Your task to perform on an android device: toggle improve location accuracy Image 0: 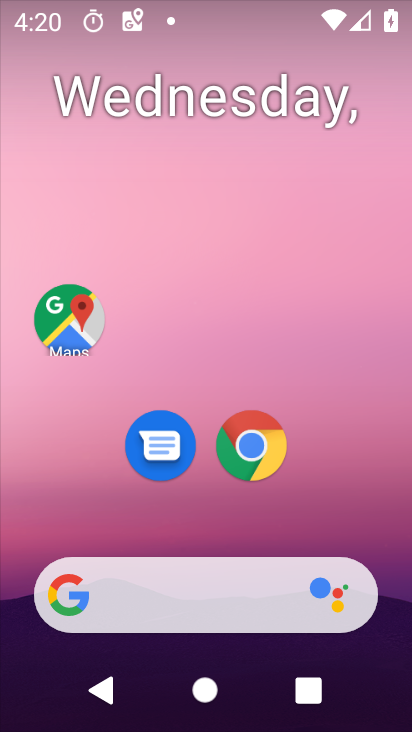
Step 0: drag from (207, 506) to (250, 61)
Your task to perform on an android device: toggle improve location accuracy Image 1: 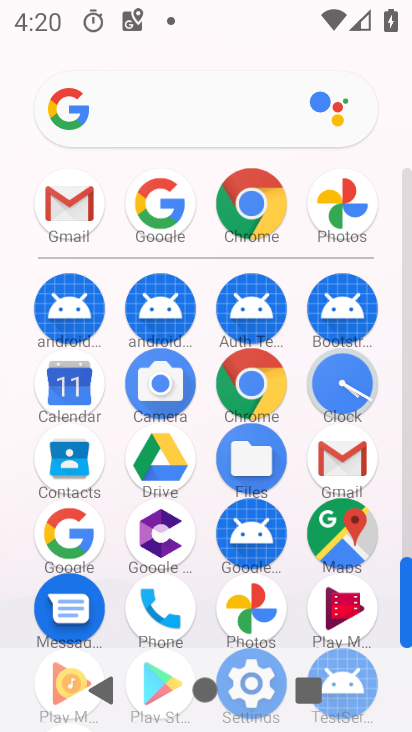
Step 1: drag from (200, 573) to (220, 232)
Your task to perform on an android device: toggle improve location accuracy Image 2: 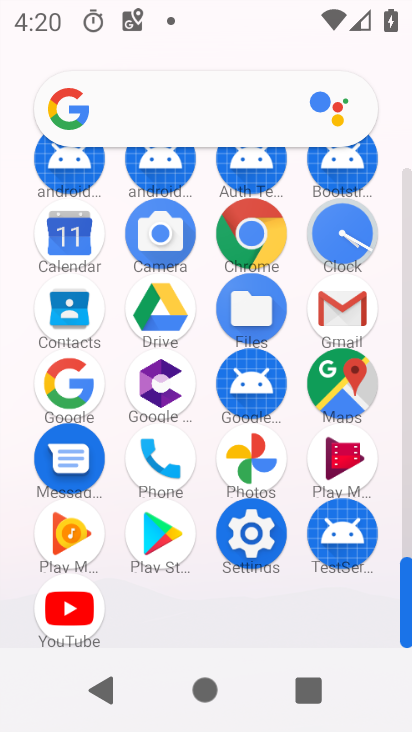
Step 2: click (254, 544)
Your task to perform on an android device: toggle improve location accuracy Image 3: 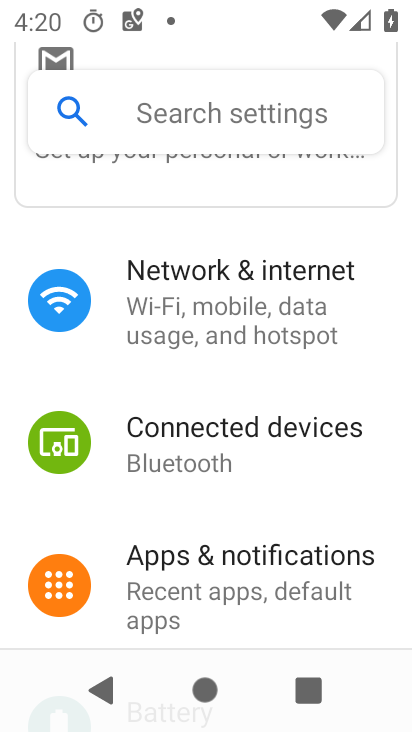
Step 3: drag from (214, 571) to (283, 93)
Your task to perform on an android device: toggle improve location accuracy Image 4: 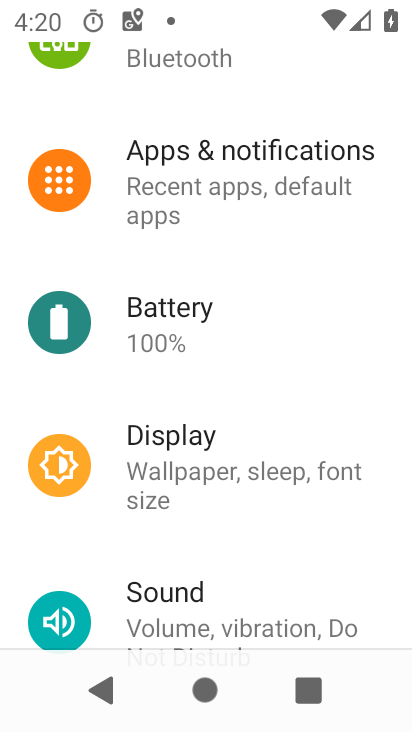
Step 4: drag from (203, 582) to (271, 25)
Your task to perform on an android device: toggle improve location accuracy Image 5: 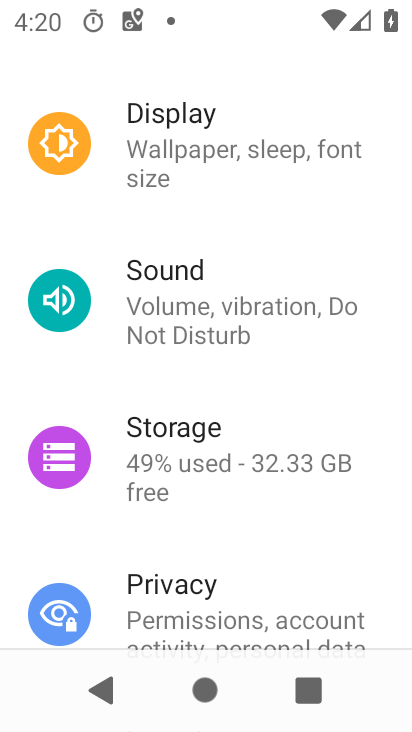
Step 5: drag from (190, 614) to (257, 227)
Your task to perform on an android device: toggle improve location accuracy Image 6: 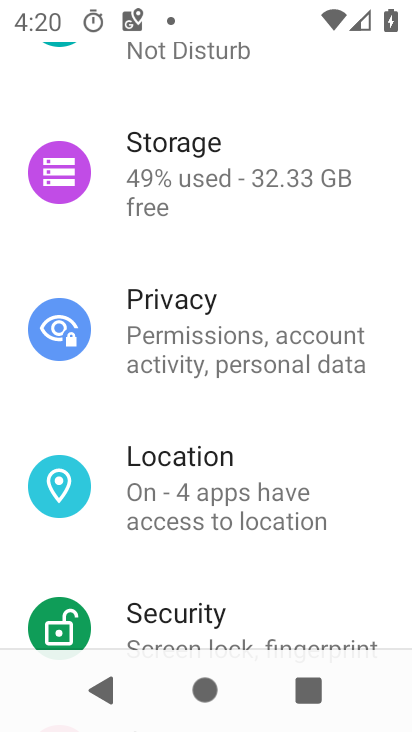
Step 6: click (173, 499)
Your task to perform on an android device: toggle improve location accuracy Image 7: 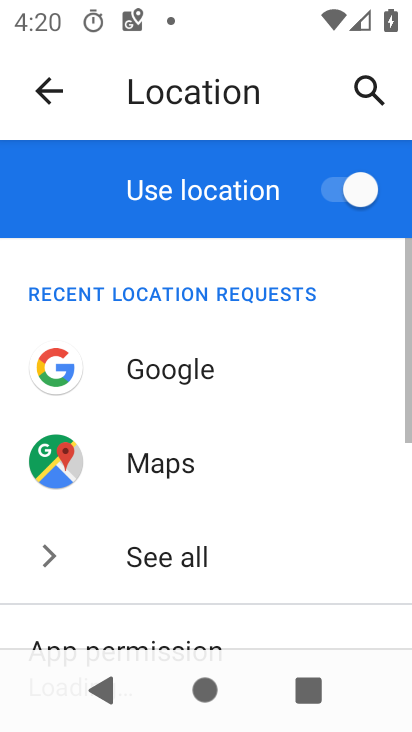
Step 7: drag from (244, 544) to (266, 57)
Your task to perform on an android device: toggle improve location accuracy Image 8: 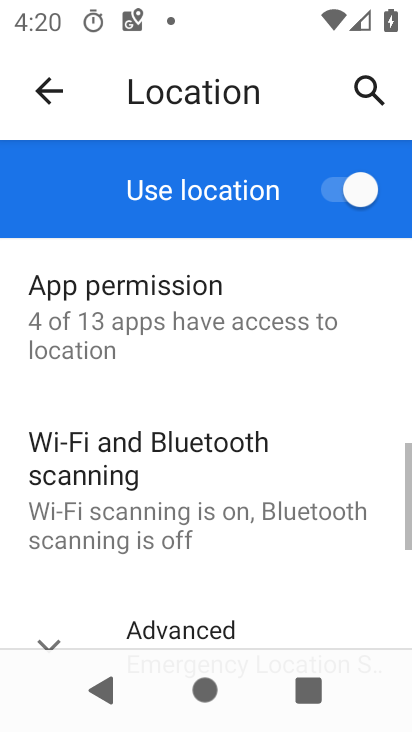
Step 8: drag from (236, 545) to (253, 231)
Your task to perform on an android device: toggle improve location accuracy Image 9: 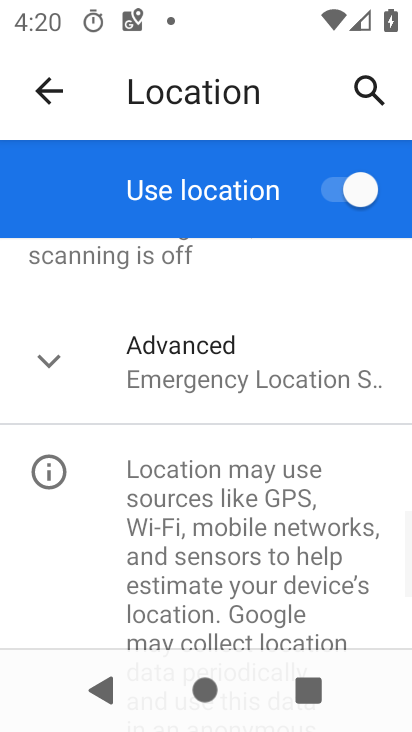
Step 9: click (177, 387)
Your task to perform on an android device: toggle improve location accuracy Image 10: 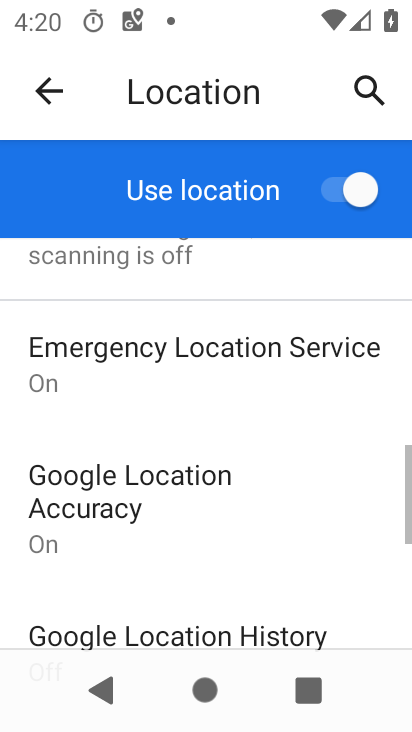
Step 10: drag from (255, 562) to (235, 317)
Your task to perform on an android device: toggle improve location accuracy Image 11: 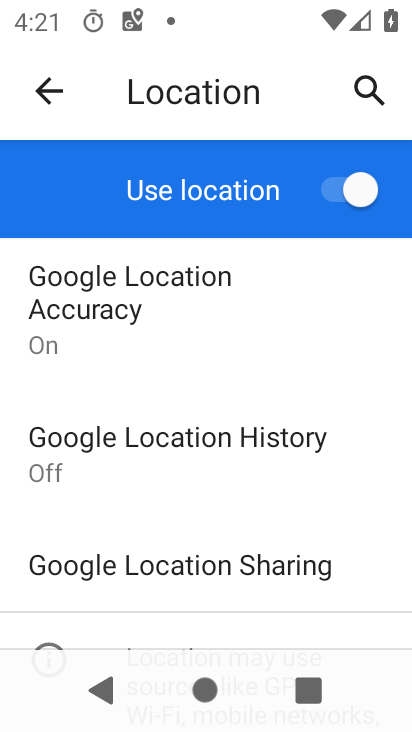
Step 11: click (151, 300)
Your task to perform on an android device: toggle improve location accuracy Image 12: 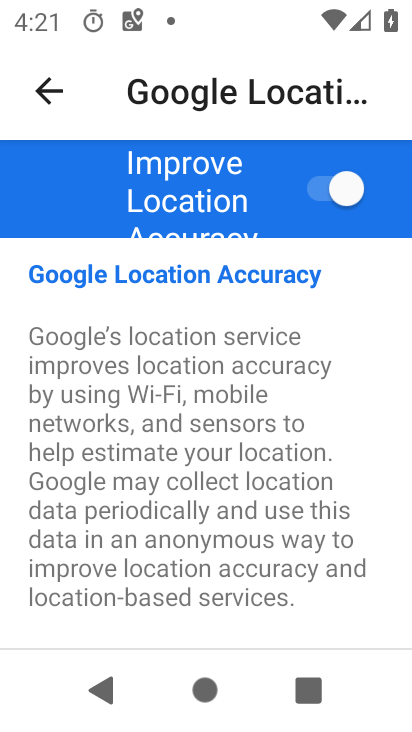
Step 12: click (357, 189)
Your task to perform on an android device: toggle improve location accuracy Image 13: 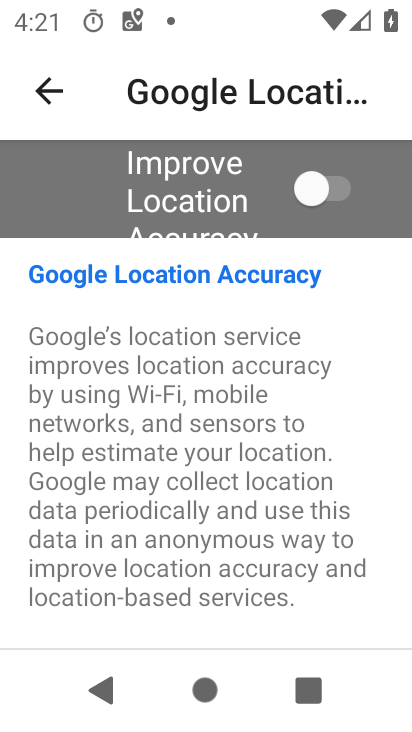
Step 13: task complete